Your task to perform on an android device: turn on the 24-hour format for clock Image 0: 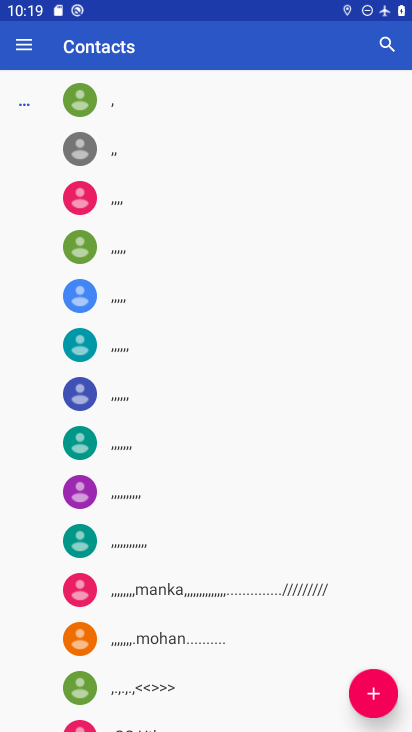
Step 0: press home button
Your task to perform on an android device: turn on the 24-hour format for clock Image 1: 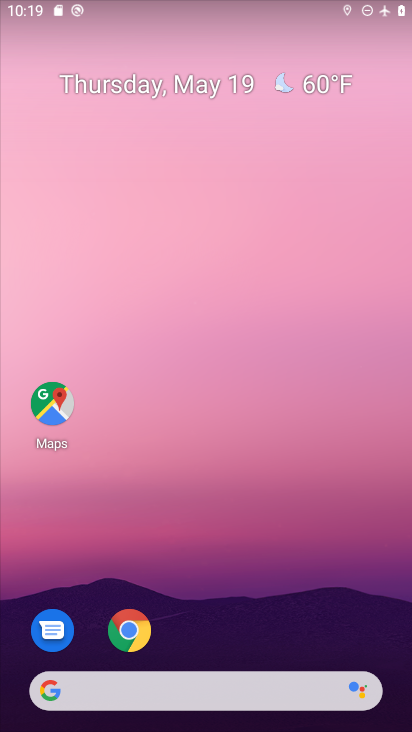
Step 1: drag from (276, 547) to (218, 22)
Your task to perform on an android device: turn on the 24-hour format for clock Image 2: 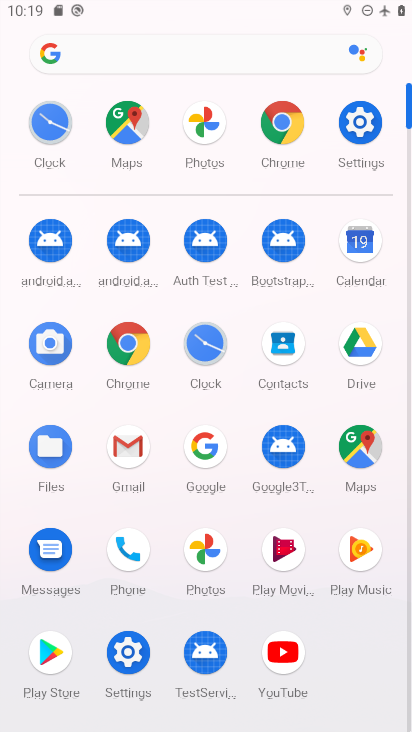
Step 2: click (207, 337)
Your task to perform on an android device: turn on the 24-hour format for clock Image 3: 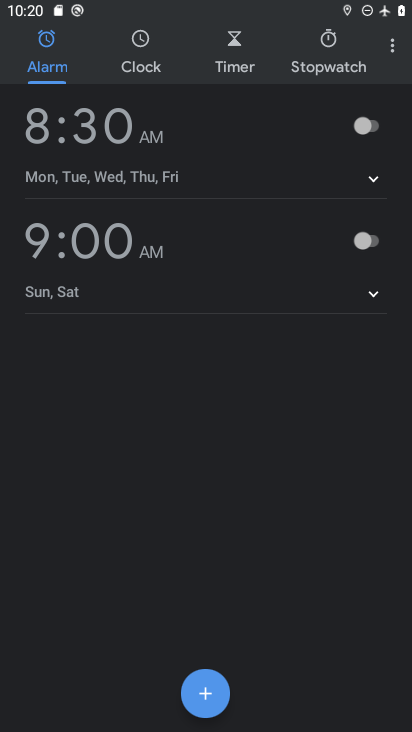
Step 3: click (395, 48)
Your task to perform on an android device: turn on the 24-hour format for clock Image 4: 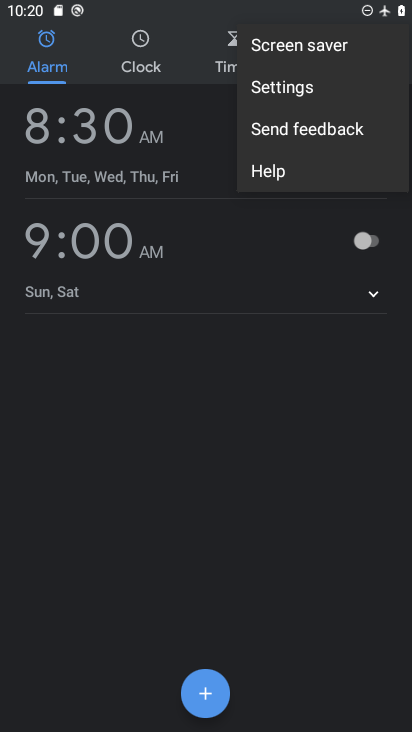
Step 4: click (294, 82)
Your task to perform on an android device: turn on the 24-hour format for clock Image 5: 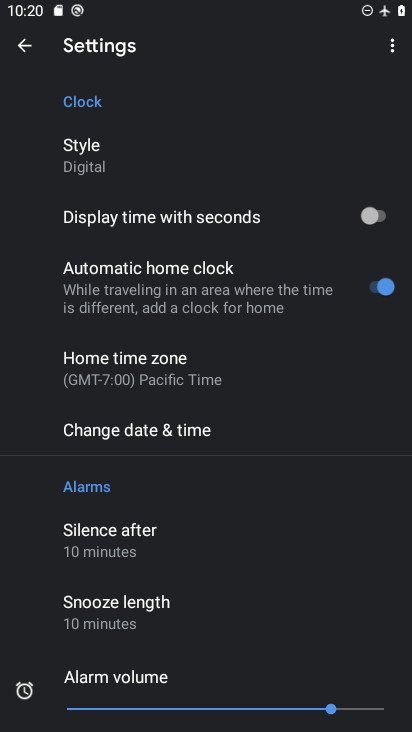
Step 5: drag from (248, 146) to (243, 100)
Your task to perform on an android device: turn on the 24-hour format for clock Image 6: 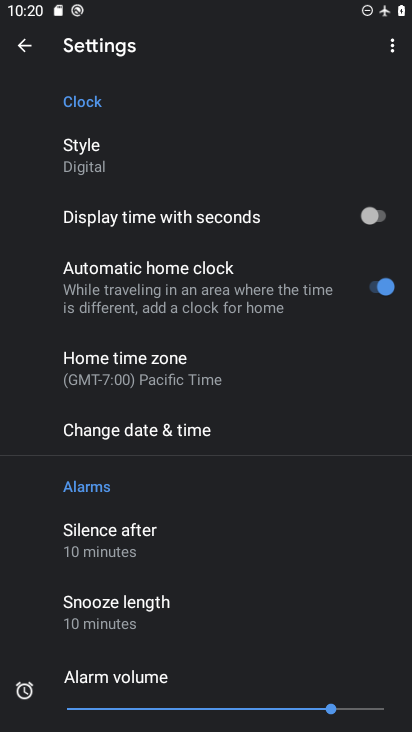
Step 6: click (158, 432)
Your task to perform on an android device: turn on the 24-hour format for clock Image 7: 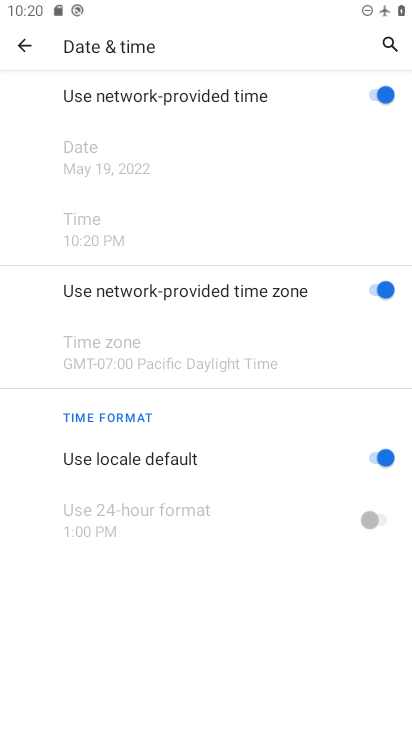
Step 7: click (390, 454)
Your task to perform on an android device: turn on the 24-hour format for clock Image 8: 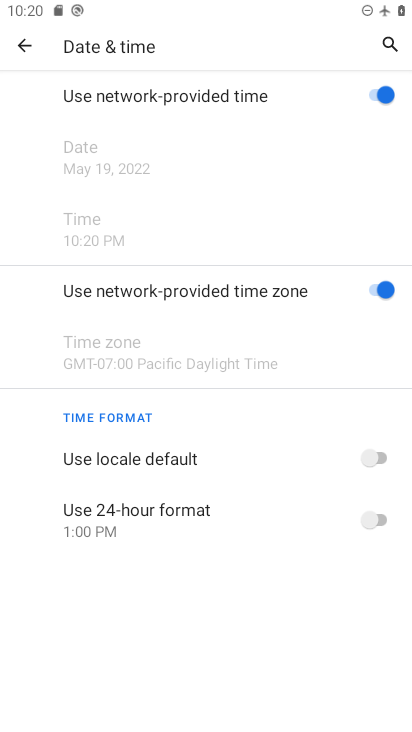
Step 8: click (373, 523)
Your task to perform on an android device: turn on the 24-hour format for clock Image 9: 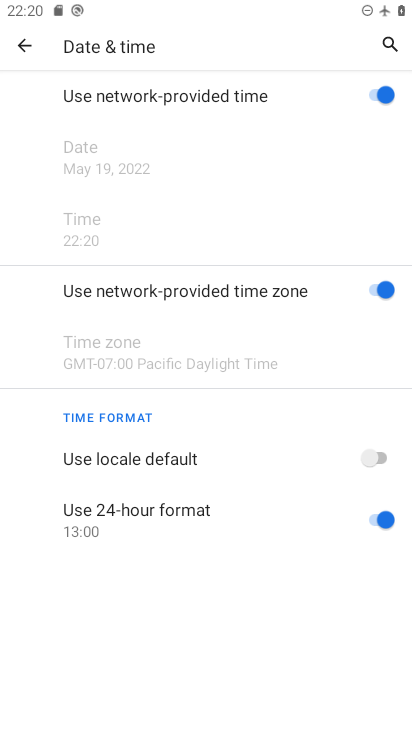
Step 9: task complete